Your task to perform on an android device: Is it going to rain this weekend? Image 0: 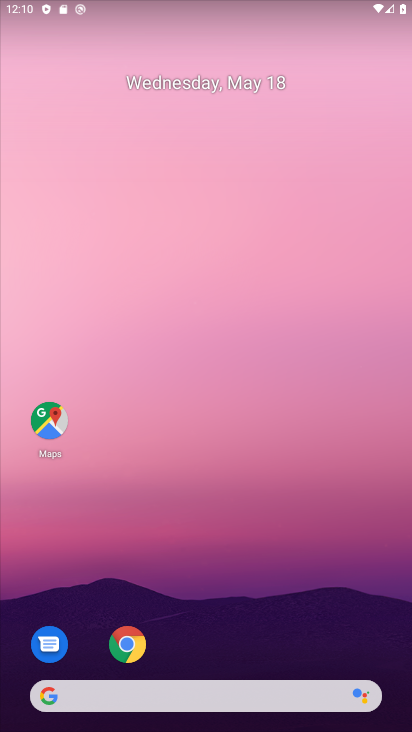
Step 0: drag from (221, 643) to (210, 166)
Your task to perform on an android device: Is it going to rain this weekend? Image 1: 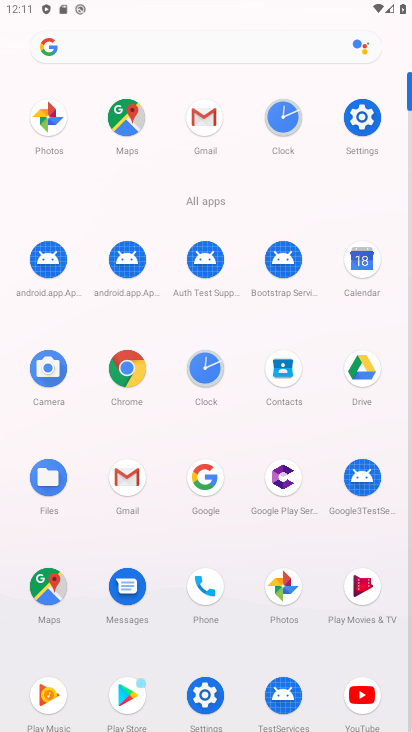
Step 1: click (127, 363)
Your task to perform on an android device: Is it going to rain this weekend? Image 2: 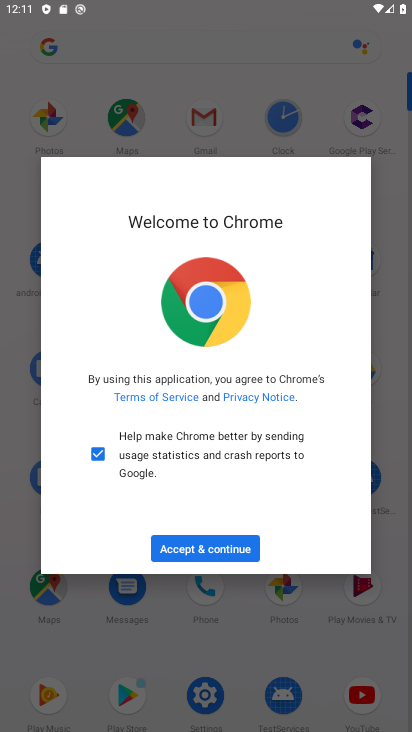
Step 2: click (215, 556)
Your task to perform on an android device: Is it going to rain this weekend? Image 3: 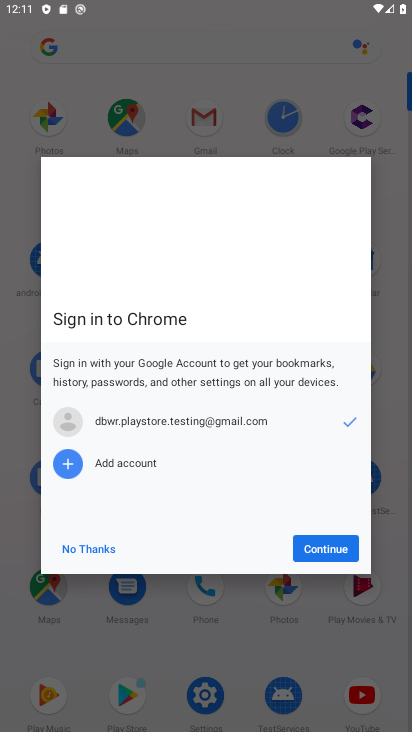
Step 3: click (334, 557)
Your task to perform on an android device: Is it going to rain this weekend? Image 4: 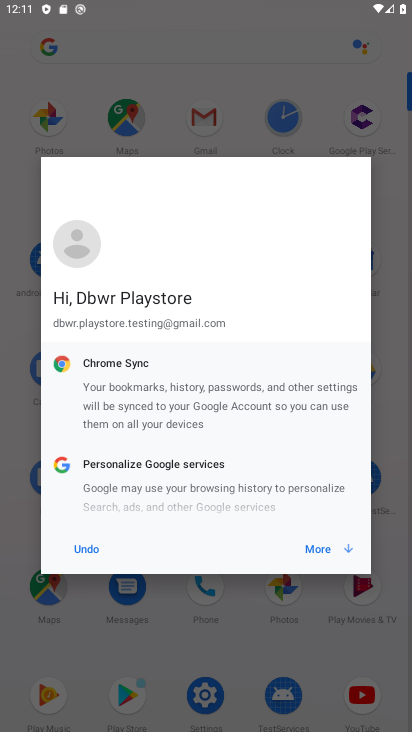
Step 4: click (327, 547)
Your task to perform on an android device: Is it going to rain this weekend? Image 5: 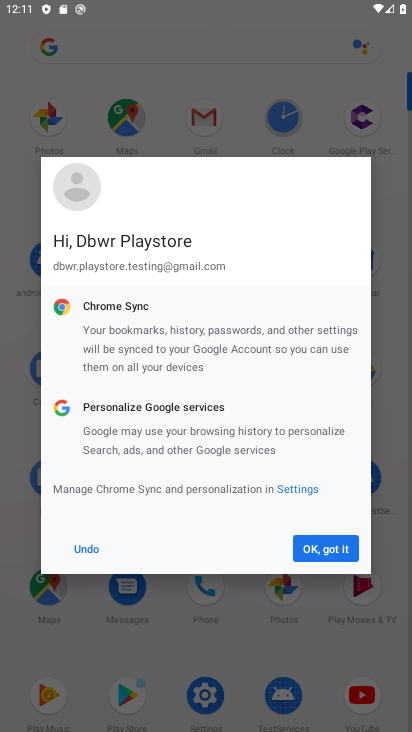
Step 5: click (327, 547)
Your task to perform on an android device: Is it going to rain this weekend? Image 6: 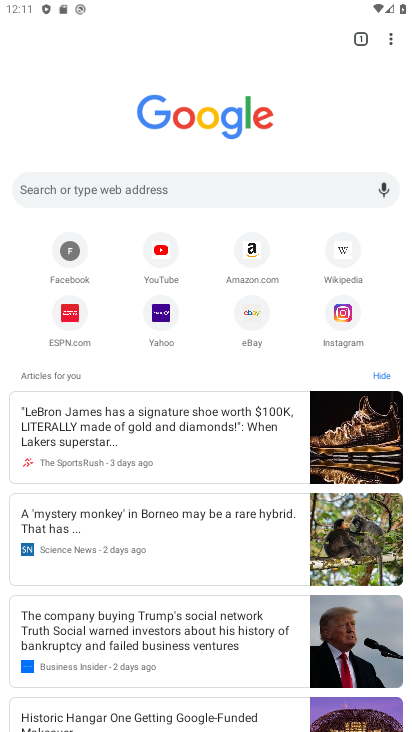
Step 6: click (291, 196)
Your task to perform on an android device: Is it going to rain this weekend? Image 7: 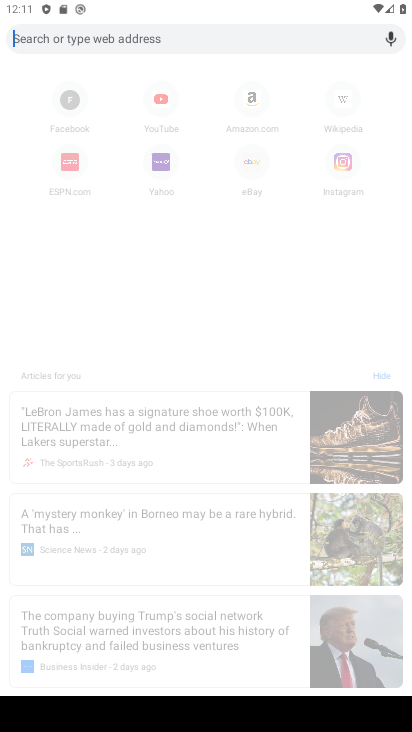
Step 7: type "Is it going to rain this weekend?"
Your task to perform on an android device: Is it going to rain this weekend? Image 8: 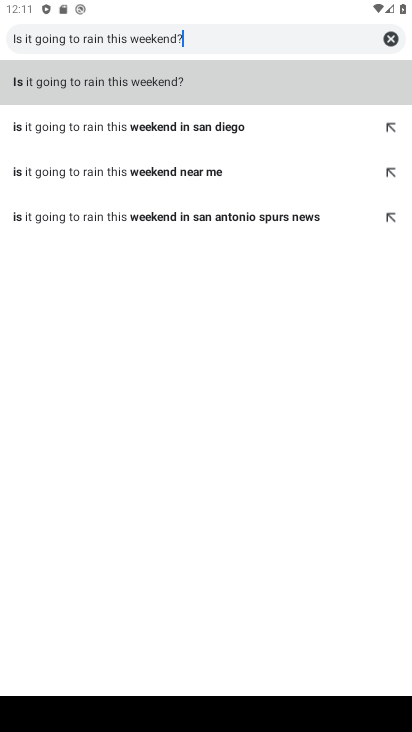
Step 8: click (240, 93)
Your task to perform on an android device: Is it going to rain this weekend? Image 9: 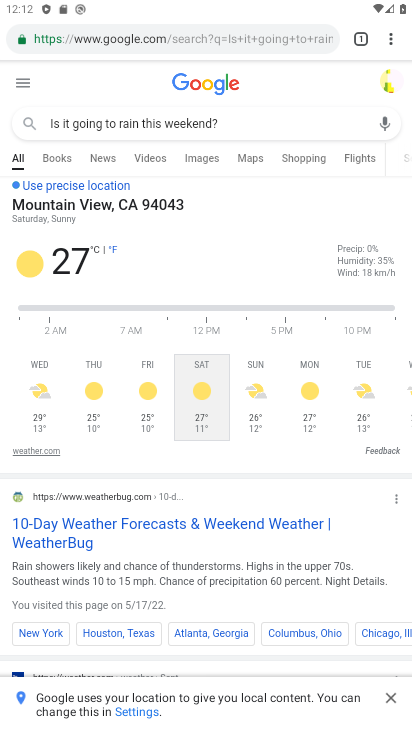
Step 9: task complete